Your task to perform on an android device: Open Google Maps and go to "Timeline" Image 0: 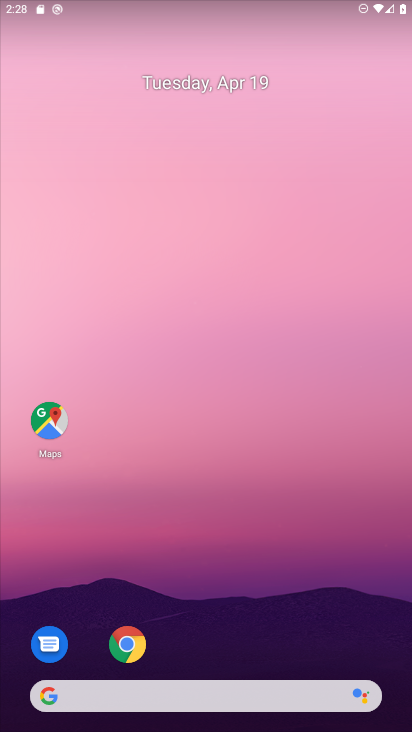
Step 0: click (36, 414)
Your task to perform on an android device: Open Google Maps and go to "Timeline" Image 1: 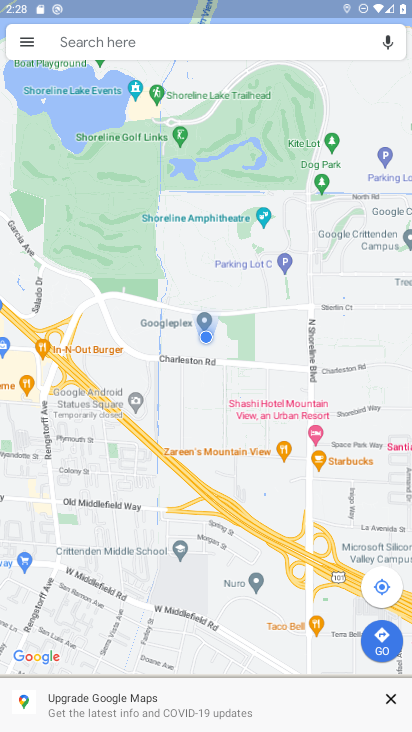
Step 1: click (19, 45)
Your task to perform on an android device: Open Google Maps and go to "Timeline" Image 2: 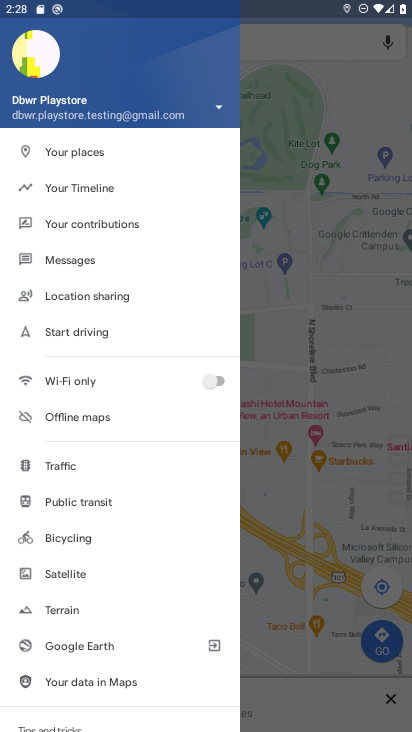
Step 2: click (74, 189)
Your task to perform on an android device: Open Google Maps and go to "Timeline" Image 3: 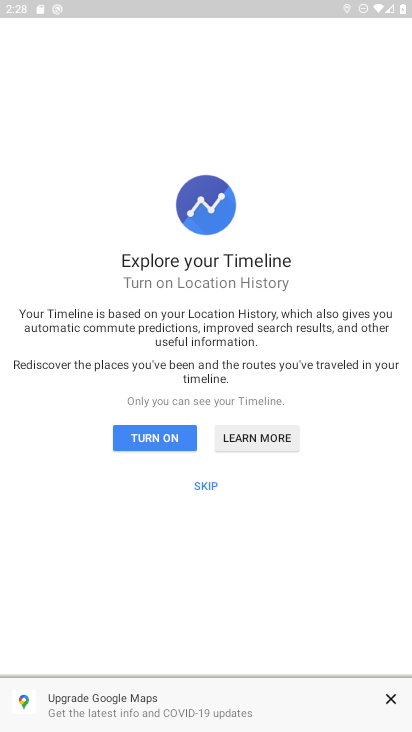
Step 3: task complete